Your task to perform on an android device: Open location settings Image 0: 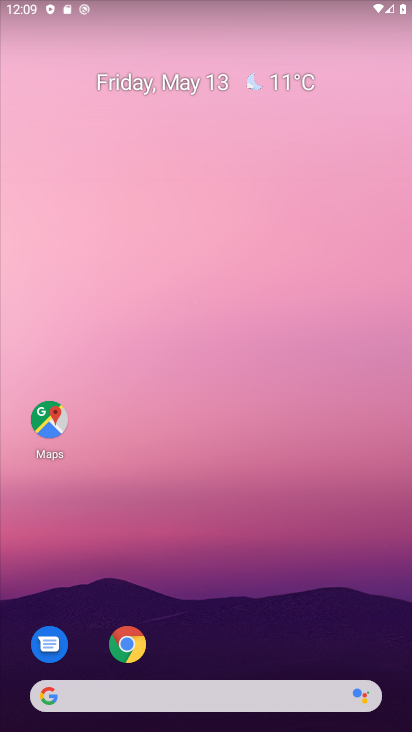
Step 0: drag from (234, 727) to (224, 61)
Your task to perform on an android device: Open location settings Image 1: 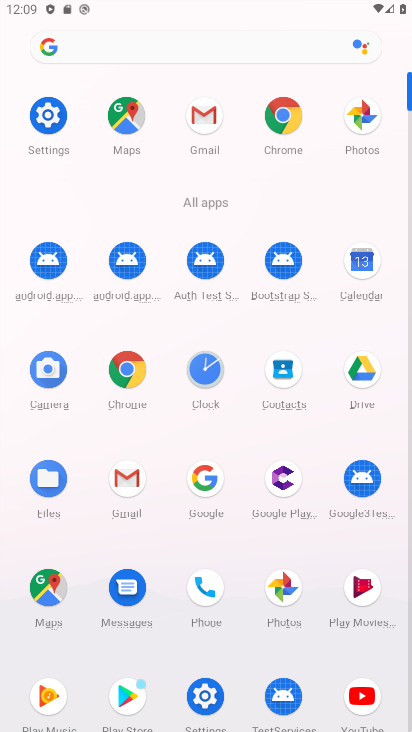
Step 1: click (46, 121)
Your task to perform on an android device: Open location settings Image 2: 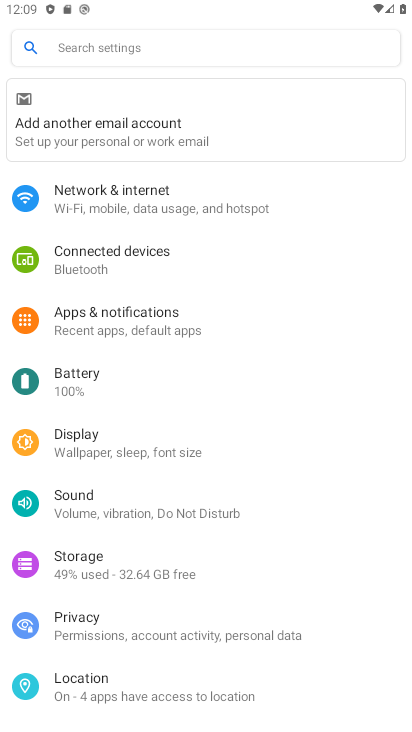
Step 2: click (87, 682)
Your task to perform on an android device: Open location settings Image 3: 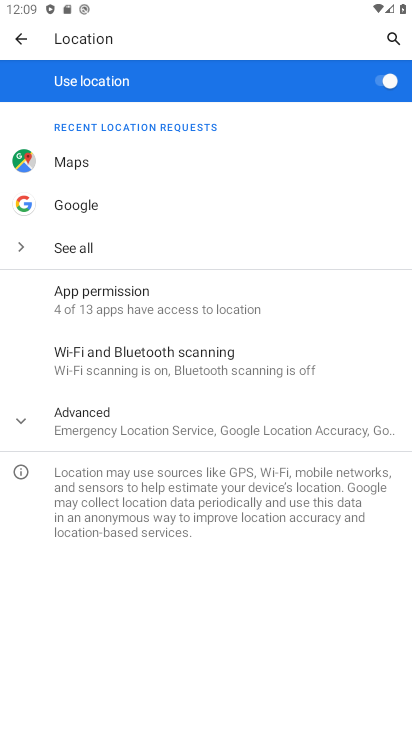
Step 3: task complete